Your task to perform on an android device: Open maps Image 0: 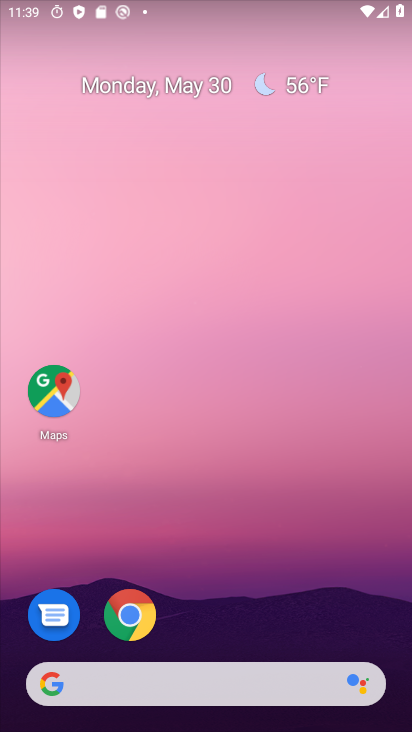
Step 0: click (60, 406)
Your task to perform on an android device: Open maps Image 1: 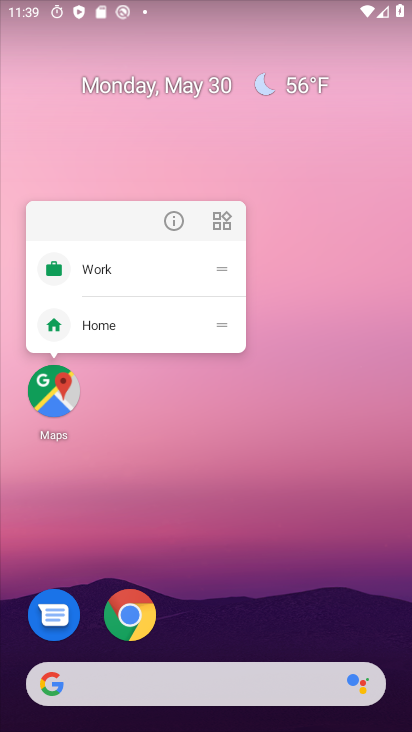
Step 1: click (60, 406)
Your task to perform on an android device: Open maps Image 2: 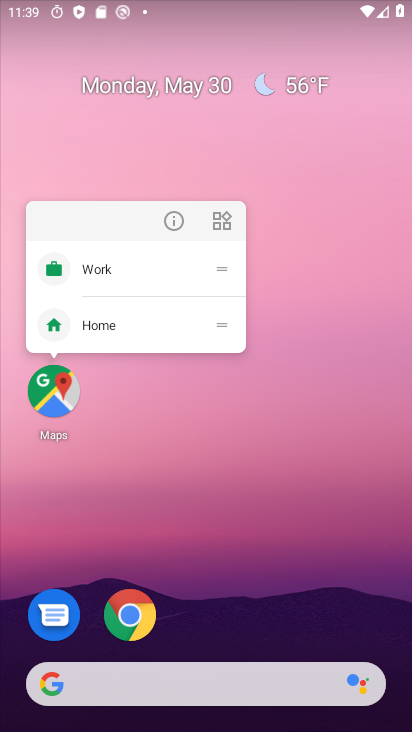
Step 2: click (59, 406)
Your task to perform on an android device: Open maps Image 3: 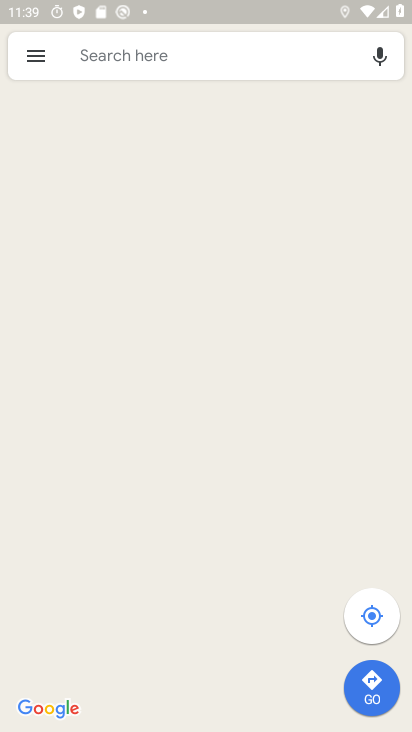
Step 3: task complete